Your task to perform on an android device: Check the news Image 0: 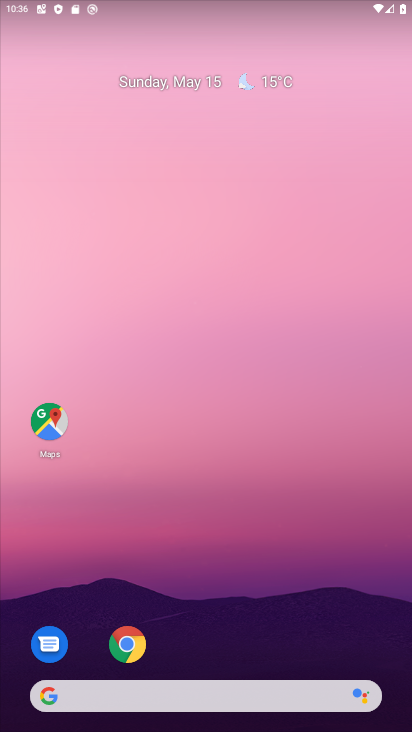
Step 0: drag from (13, 304) to (402, 440)
Your task to perform on an android device: Check the news Image 1: 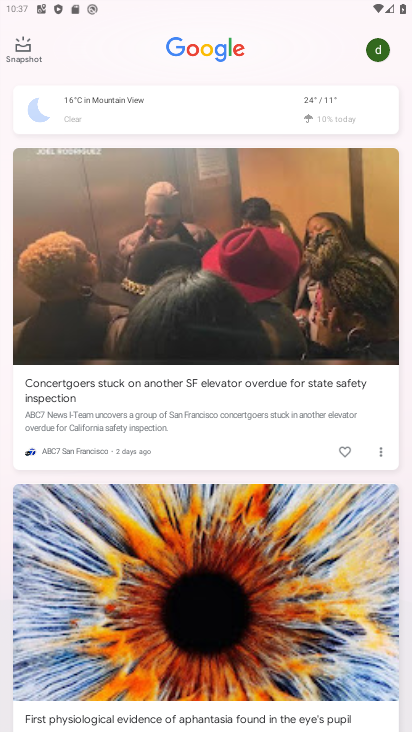
Step 1: task complete